Your task to perform on an android device: Open display settings Image 0: 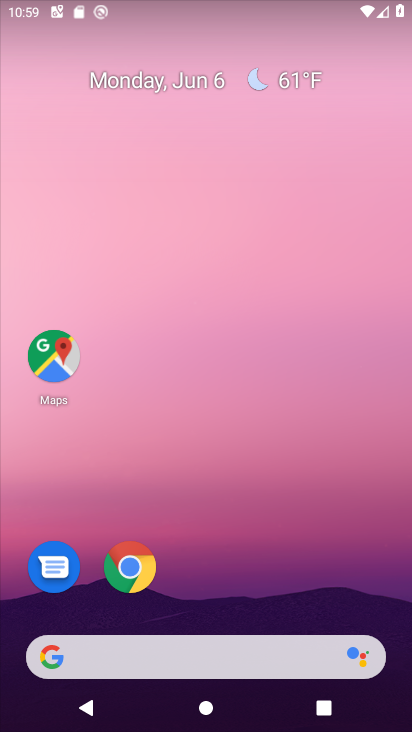
Step 0: drag from (241, 722) to (241, 85)
Your task to perform on an android device: Open display settings Image 1: 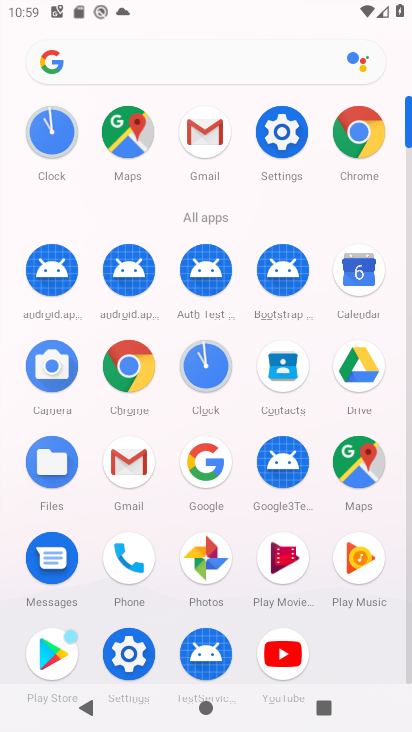
Step 1: click (277, 126)
Your task to perform on an android device: Open display settings Image 2: 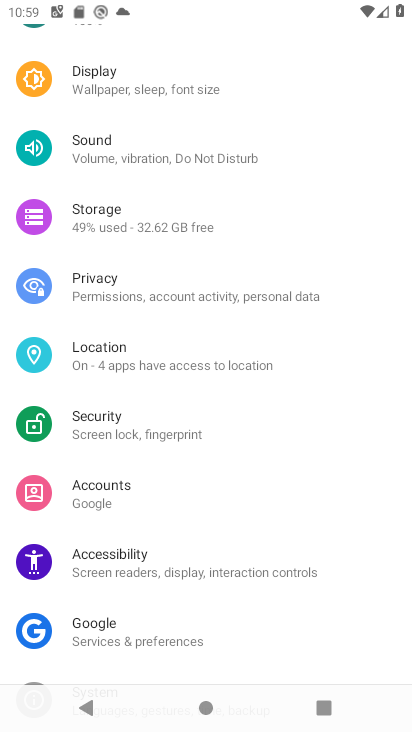
Step 2: click (95, 93)
Your task to perform on an android device: Open display settings Image 3: 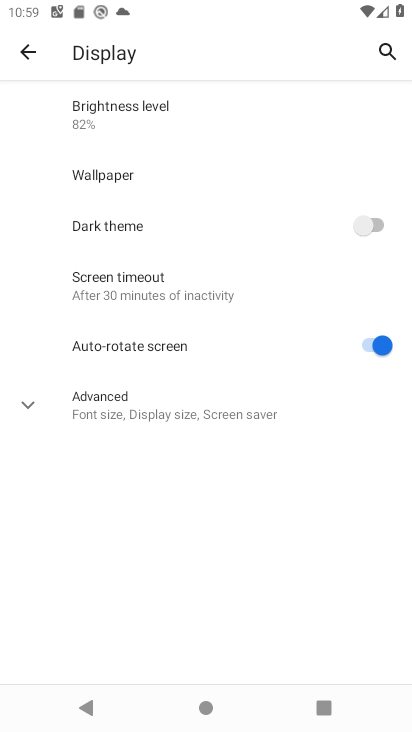
Step 3: task complete